Your task to perform on an android device: What's the weather? Image 0: 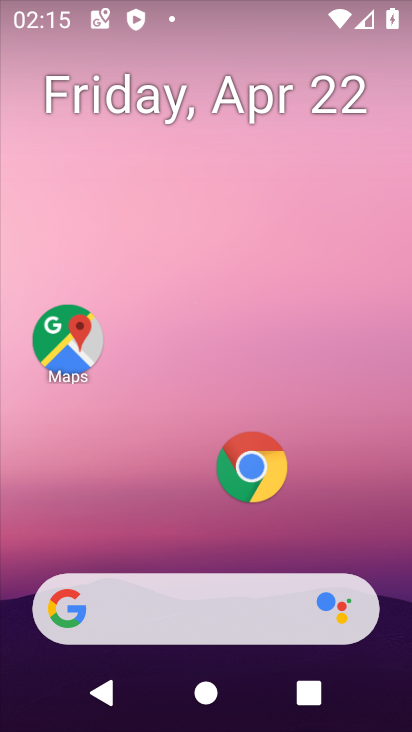
Step 0: click (246, 463)
Your task to perform on an android device: What's the weather? Image 1: 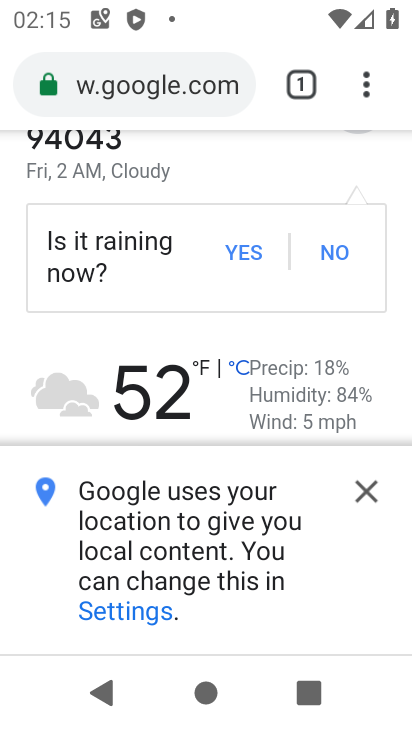
Step 1: click (183, 83)
Your task to perform on an android device: What's the weather? Image 2: 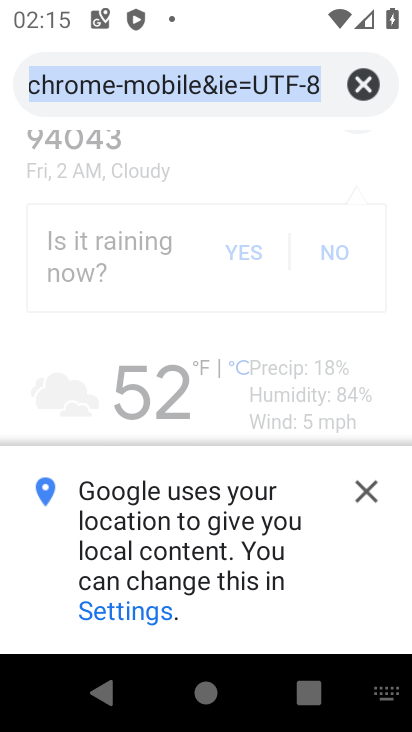
Step 2: type "weather"
Your task to perform on an android device: What's the weather? Image 3: 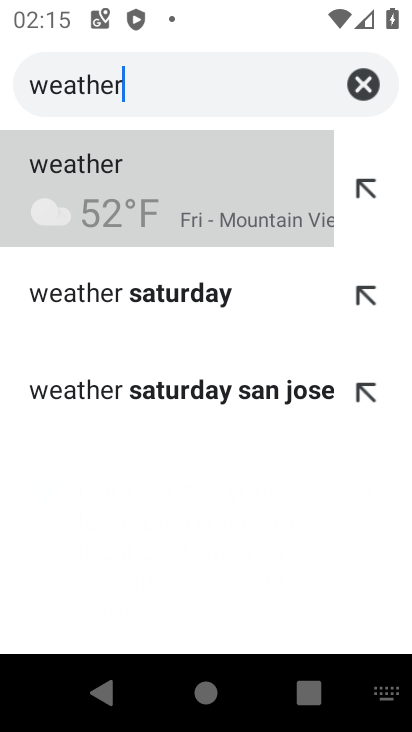
Step 3: click (132, 222)
Your task to perform on an android device: What's the weather? Image 4: 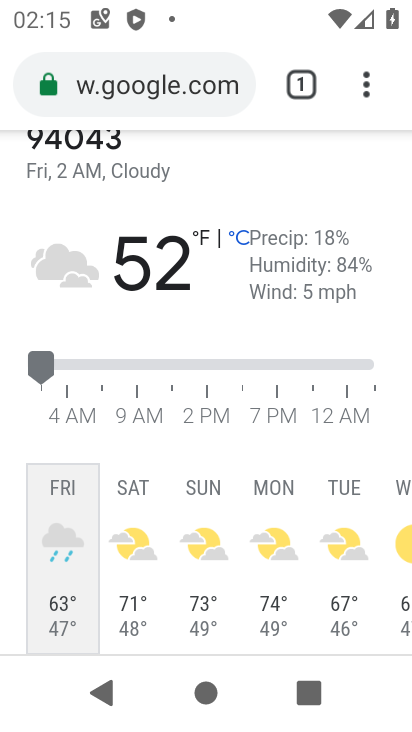
Step 4: task complete